Your task to perform on an android device: Is it going to rain this weekend? Image 0: 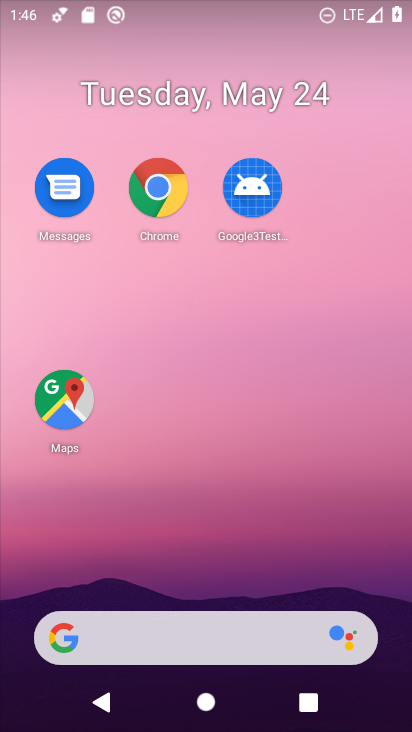
Step 0: click (204, 12)
Your task to perform on an android device: Is it going to rain this weekend? Image 1: 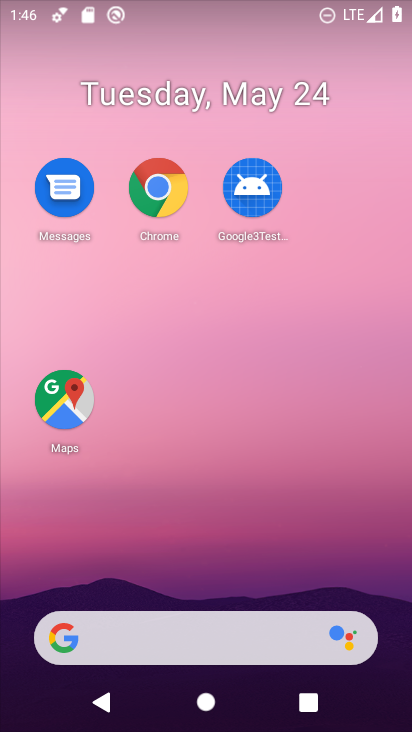
Step 1: click (178, 634)
Your task to perform on an android device: Is it going to rain this weekend? Image 2: 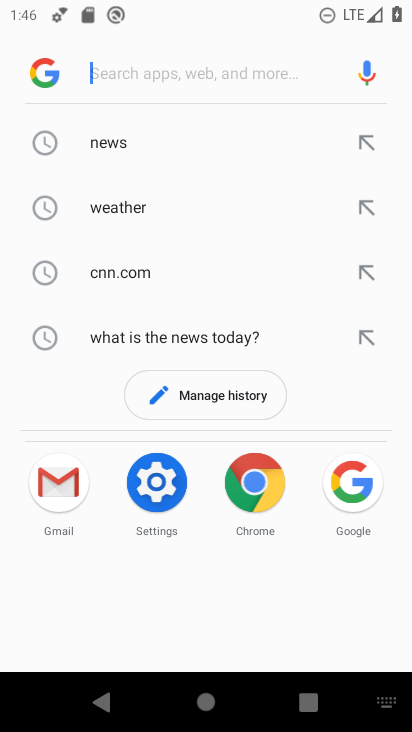
Step 2: click (133, 212)
Your task to perform on an android device: Is it going to rain this weekend? Image 3: 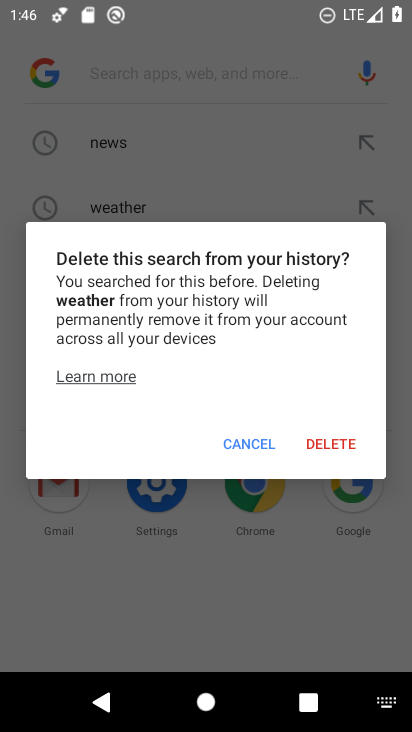
Step 3: click (263, 449)
Your task to perform on an android device: Is it going to rain this weekend? Image 4: 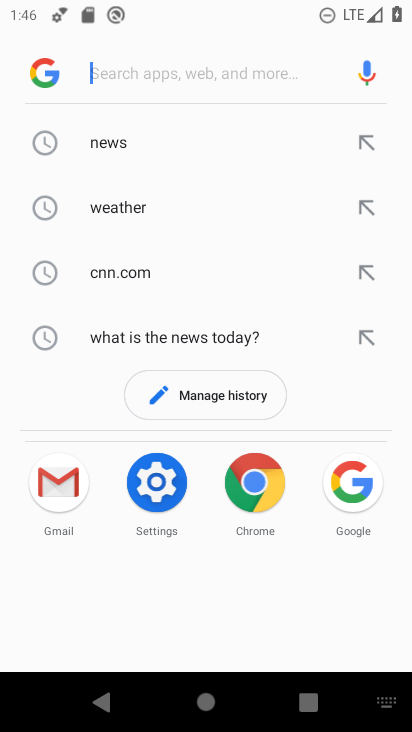
Step 4: click (111, 205)
Your task to perform on an android device: Is it going to rain this weekend? Image 5: 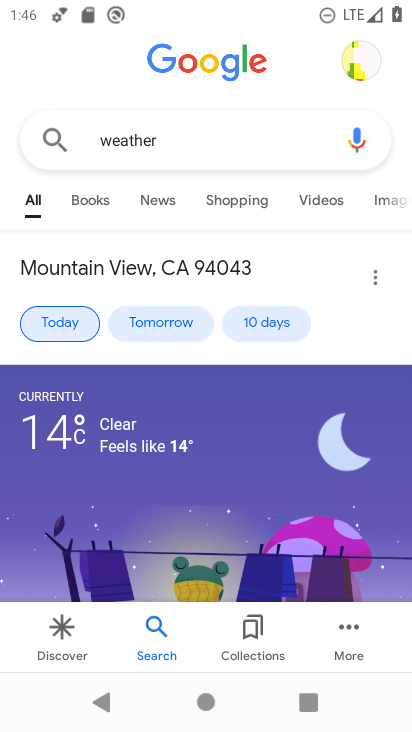
Step 5: click (265, 327)
Your task to perform on an android device: Is it going to rain this weekend? Image 6: 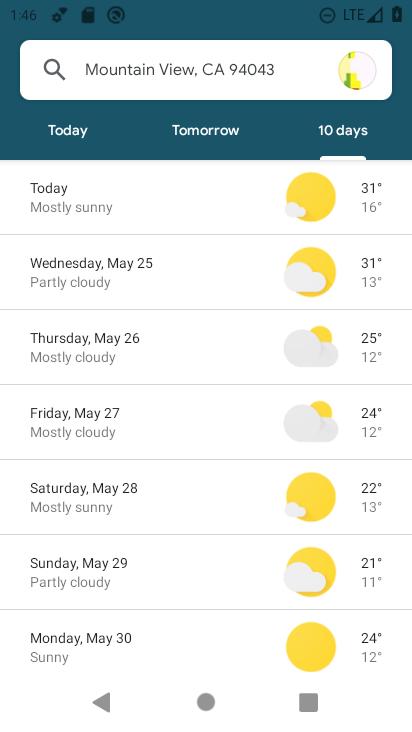
Step 6: task complete